Your task to perform on an android device: Open the stopwatch Image 0: 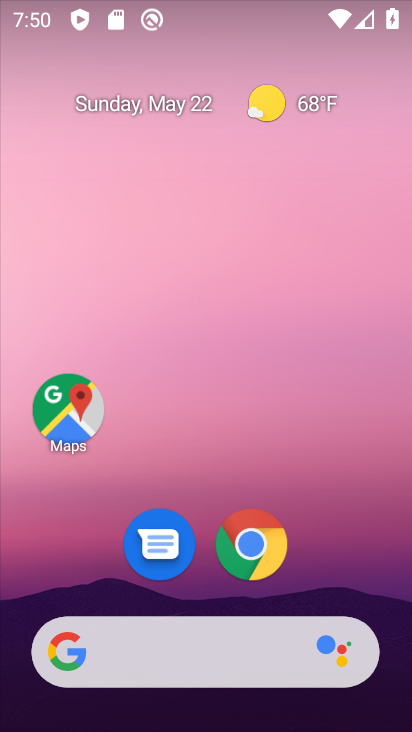
Step 0: drag from (393, 630) to (339, 53)
Your task to perform on an android device: Open the stopwatch Image 1: 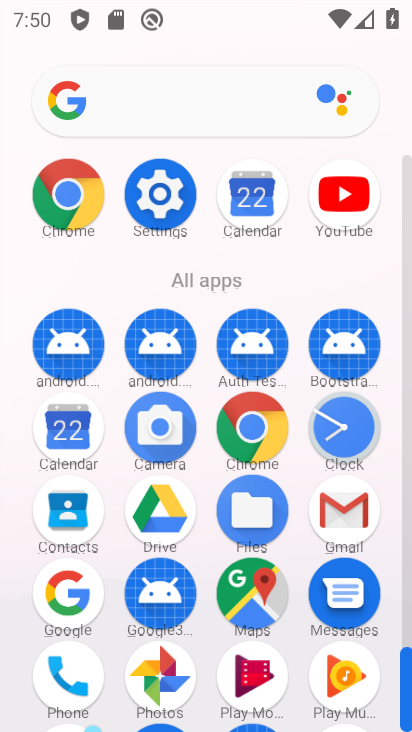
Step 1: click (331, 411)
Your task to perform on an android device: Open the stopwatch Image 2: 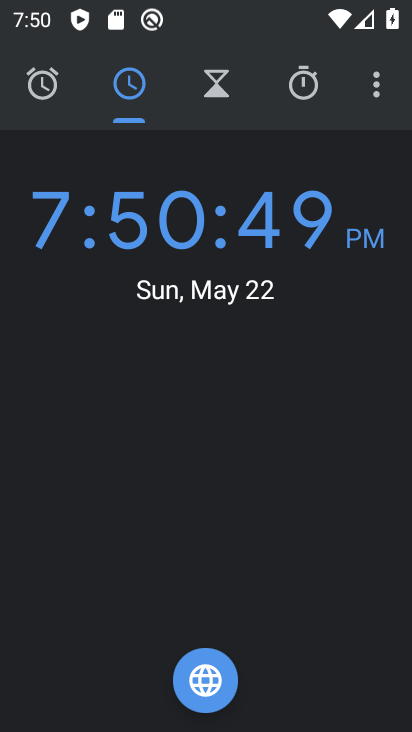
Step 2: click (299, 73)
Your task to perform on an android device: Open the stopwatch Image 3: 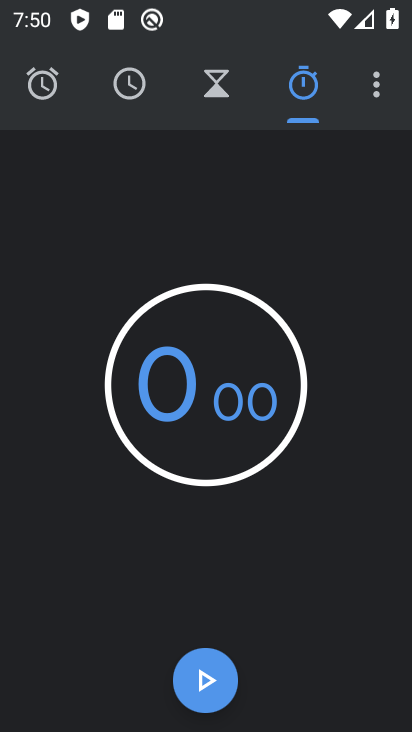
Step 3: task complete